Your task to perform on an android device: Open Maps and search for coffee Image 0: 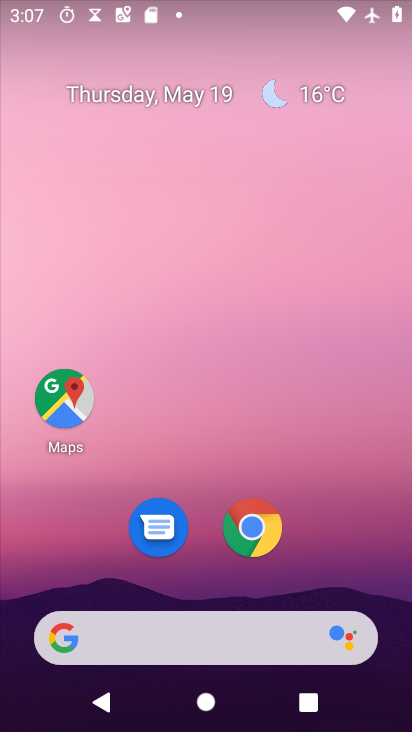
Step 0: click (62, 382)
Your task to perform on an android device: Open Maps and search for coffee Image 1: 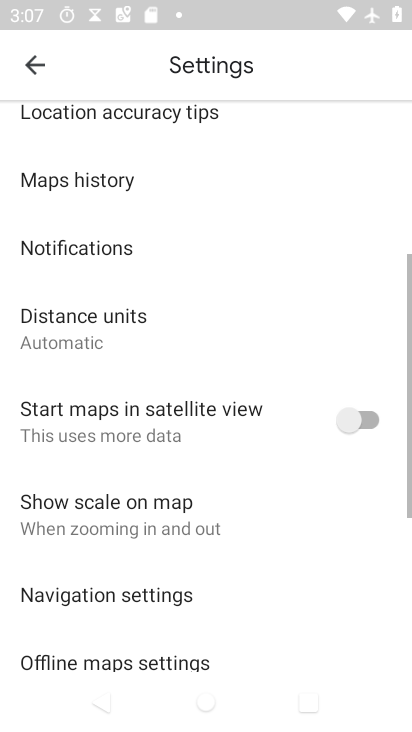
Step 1: drag from (292, 511) to (224, 183)
Your task to perform on an android device: Open Maps and search for coffee Image 2: 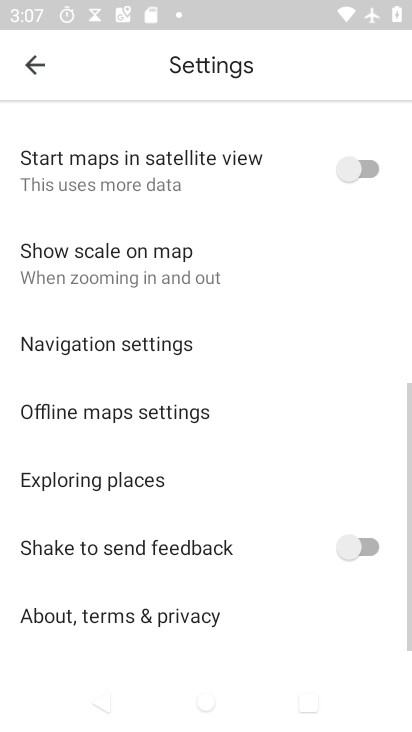
Step 2: drag from (234, 169) to (238, 627)
Your task to perform on an android device: Open Maps and search for coffee Image 3: 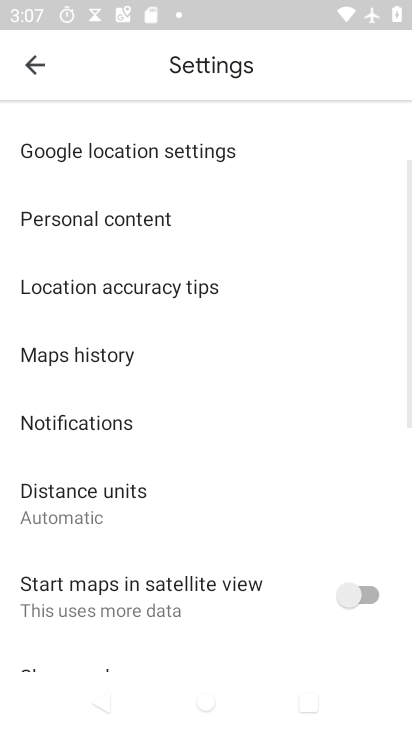
Step 3: drag from (224, 235) to (248, 614)
Your task to perform on an android device: Open Maps and search for coffee Image 4: 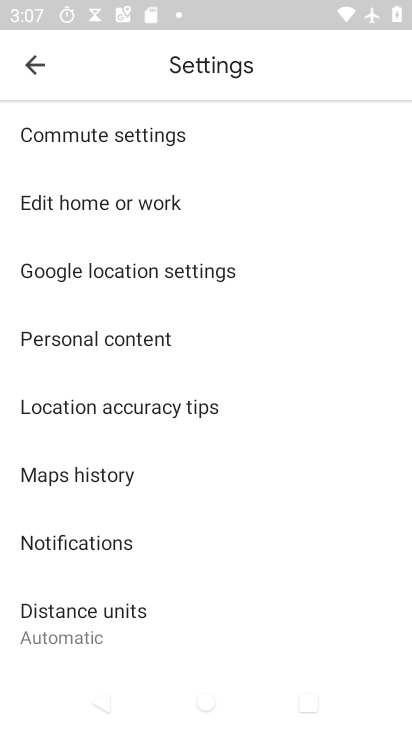
Step 4: click (40, 70)
Your task to perform on an android device: Open Maps and search for coffee Image 5: 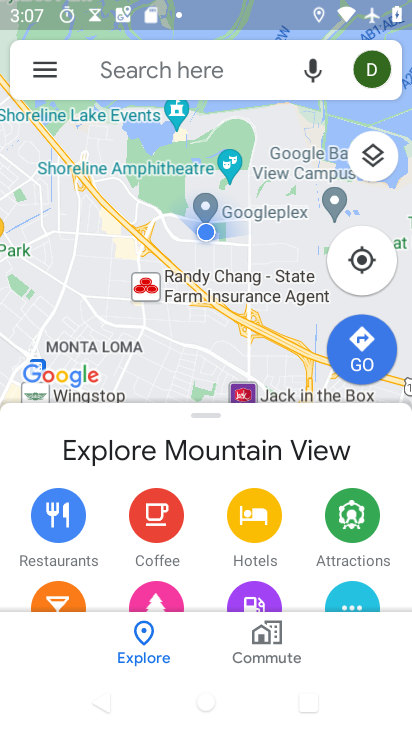
Step 5: click (168, 52)
Your task to perform on an android device: Open Maps and search for coffee Image 6: 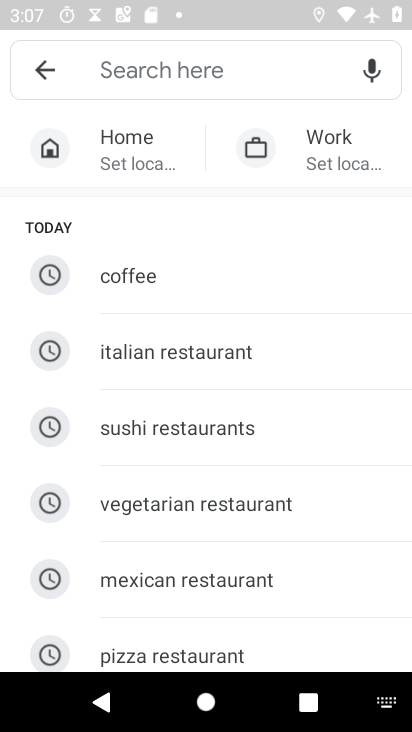
Step 6: click (181, 68)
Your task to perform on an android device: Open Maps and search for coffee Image 7: 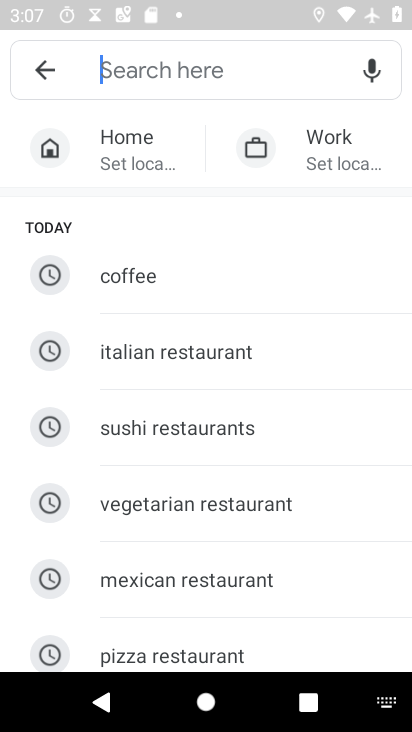
Step 7: click (205, 276)
Your task to perform on an android device: Open Maps and search for coffee Image 8: 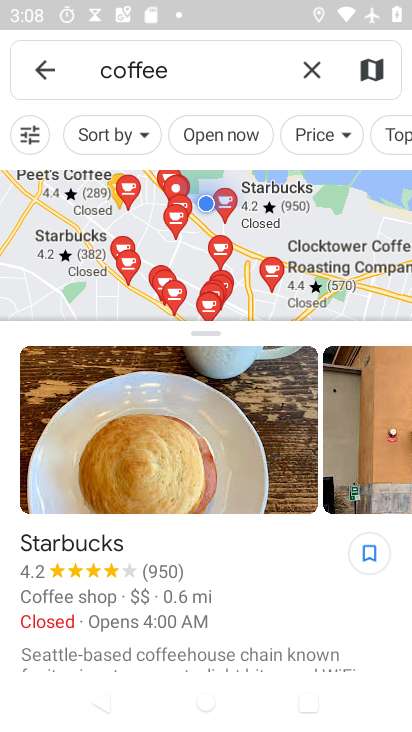
Step 8: task complete